Your task to perform on an android device: Search for Italian restaurants on Maps Image 0: 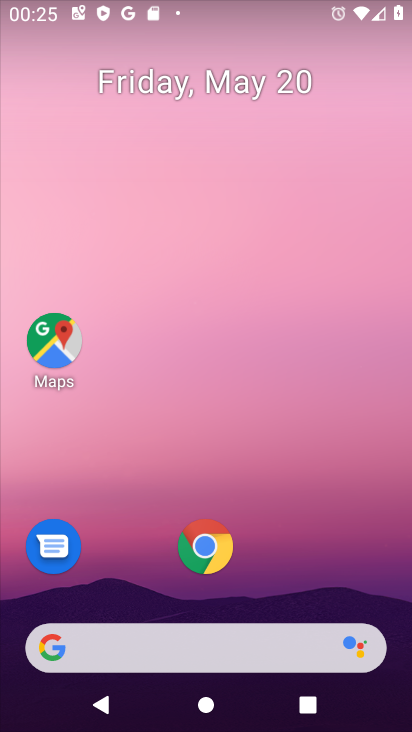
Step 0: click (55, 333)
Your task to perform on an android device: Search for Italian restaurants on Maps Image 1: 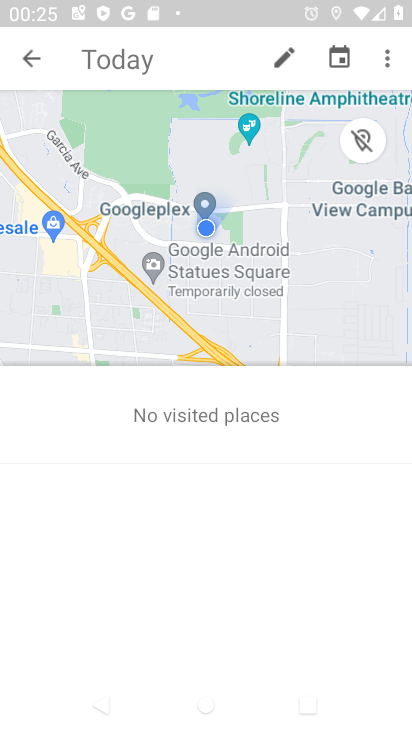
Step 1: click (38, 50)
Your task to perform on an android device: Search for Italian restaurants on Maps Image 2: 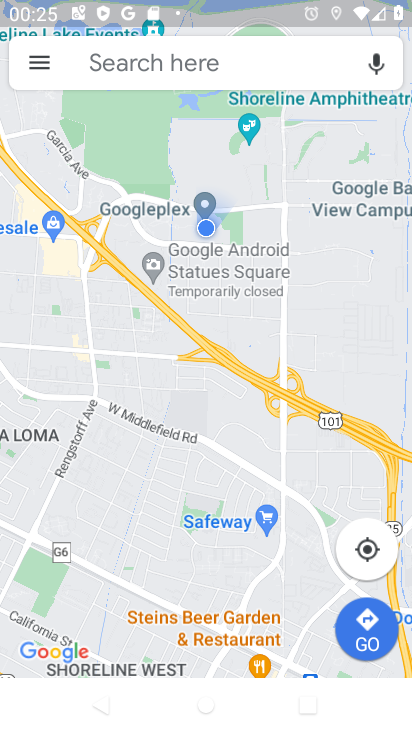
Step 2: click (221, 66)
Your task to perform on an android device: Search for Italian restaurants on Maps Image 3: 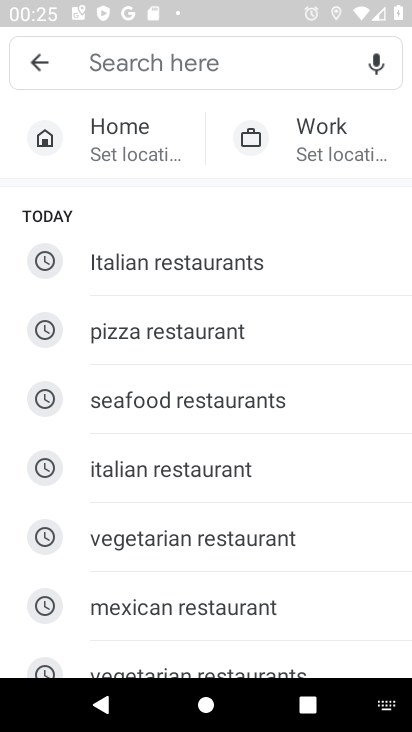
Step 3: click (227, 256)
Your task to perform on an android device: Search for Italian restaurants on Maps Image 4: 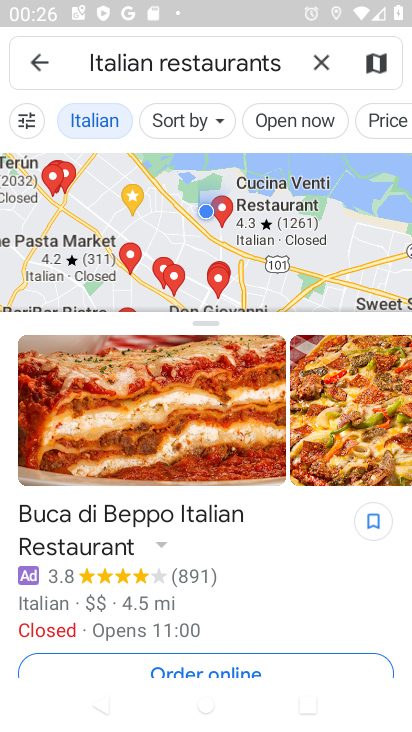
Step 4: task complete